Your task to perform on an android device: turn off javascript in the chrome app Image 0: 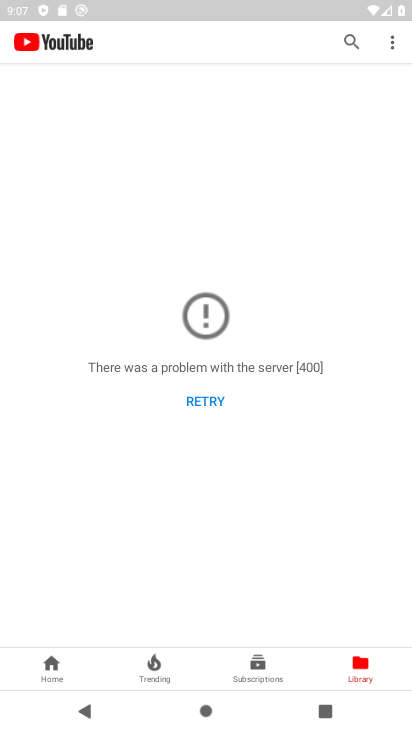
Step 0: press home button
Your task to perform on an android device: turn off javascript in the chrome app Image 1: 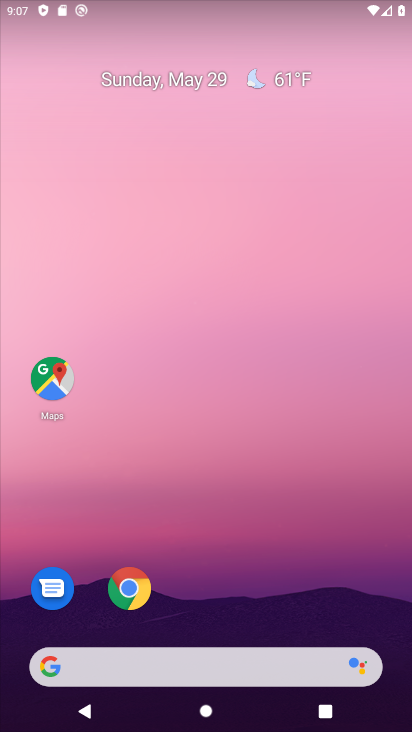
Step 1: click (123, 589)
Your task to perform on an android device: turn off javascript in the chrome app Image 2: 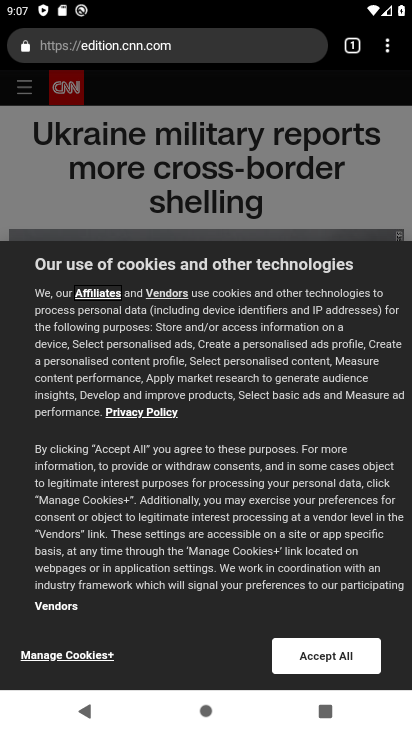
Step 2: drag from (381, 48) to (243, 513)
Your task to perform on an android device: turn off javascript in the chrome app Image 3: 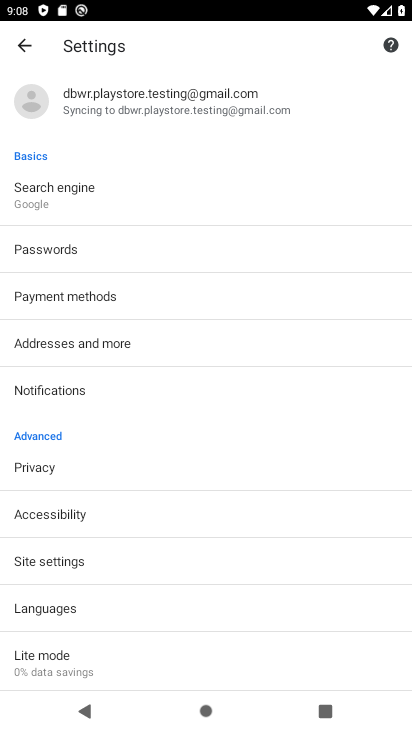
Step 3: drag from (187, 506) to (183, 252)
Your task to perform on an android device: turn off javascript in the chrome app Image 4: 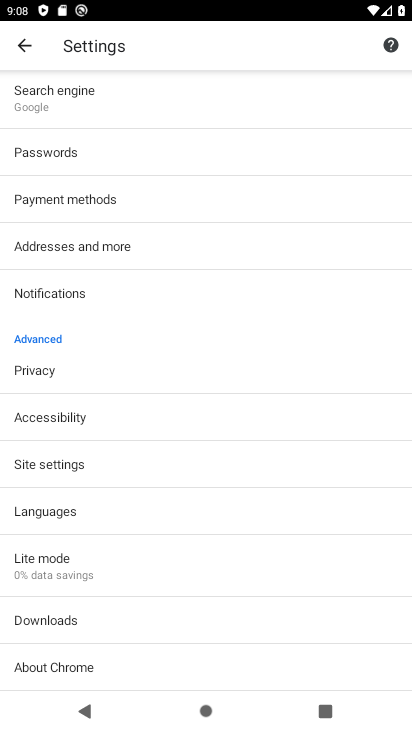
Step 4: click (188, 470)
Your task to perform on an android device: turn off javascript in the chrome app Image 5: 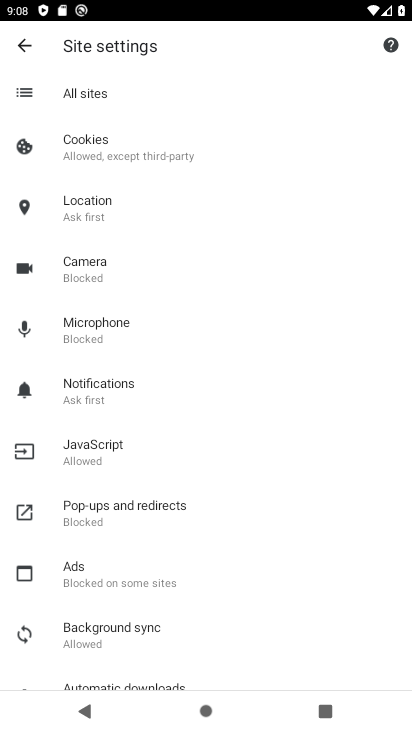
Step 5: click (189, 462)
Your task to perform on an android device: turn off javascript in the chrome app Image 6: 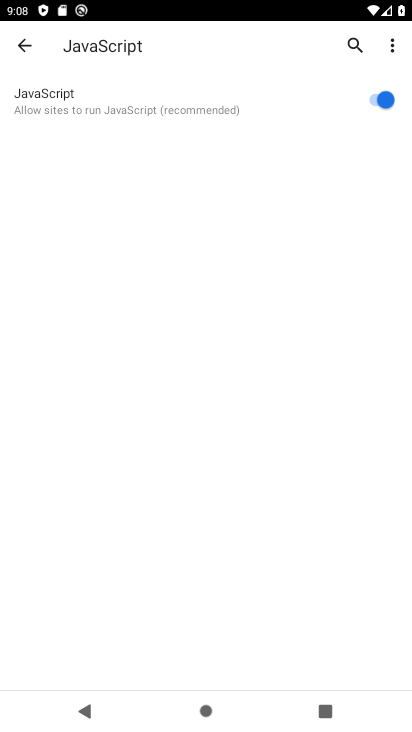
Step 6: click (386, 84)
Your task to perform on an android device: turn off javascript in the chrome app Image 7: 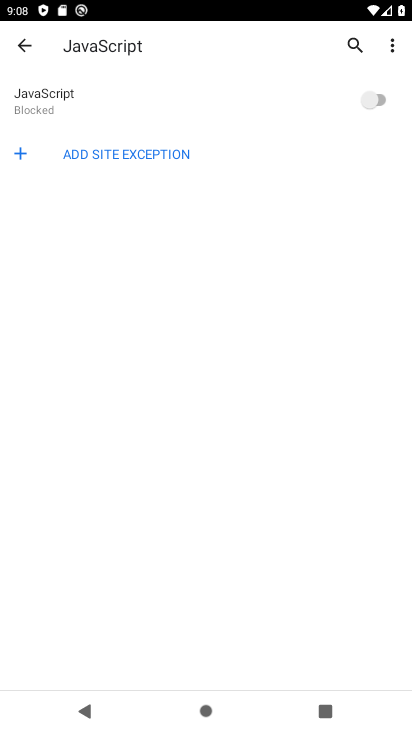
Step 7: task complete